Your task to perform on an android device: Go to settings Image 0: 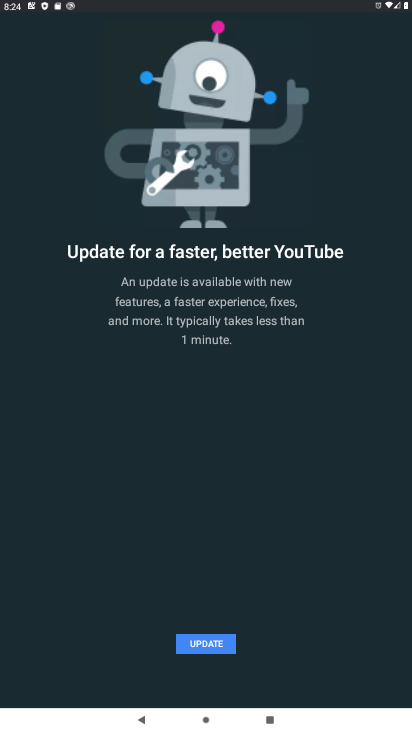
Step 0: press home button
Your task to perform on an android device: Go to settings Image 1: 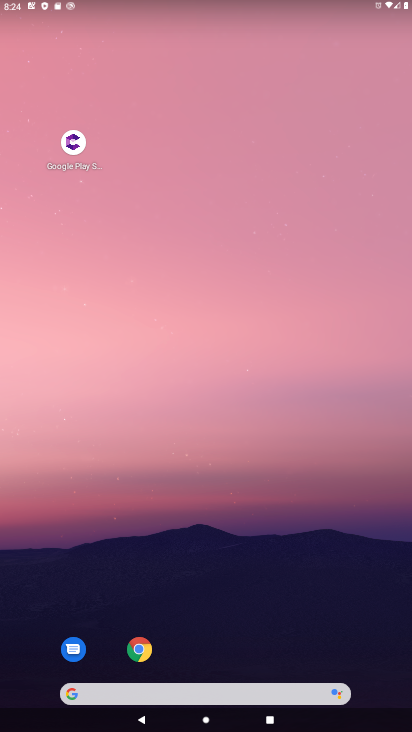
Step 1: drag from (385, 653) to (349, 126)
Your task to perform on an android device: Go to settings Image 2: 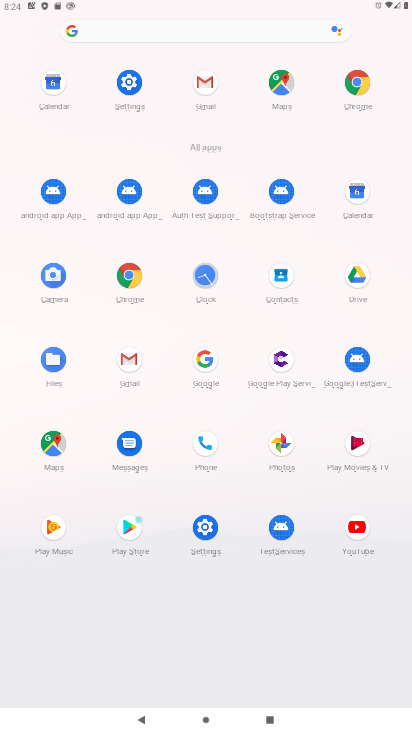
Step 2: click (204, 526)
Your task to perform on an android device: Go to settings Image 3: 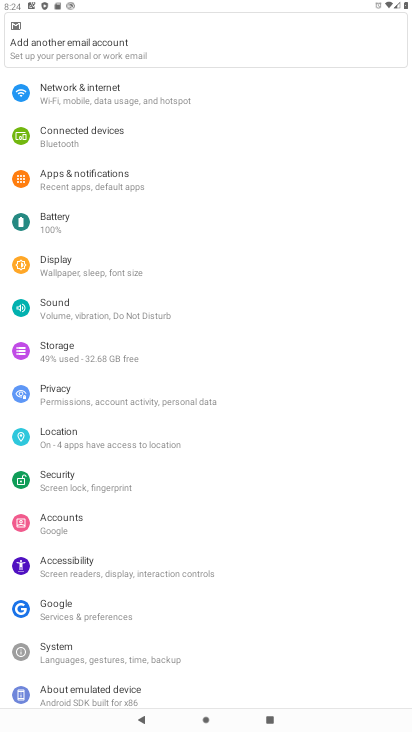
Step 3: task complete